Your task to perform on an android device: What's the weather like in Rio de Janeiro? Image 0: 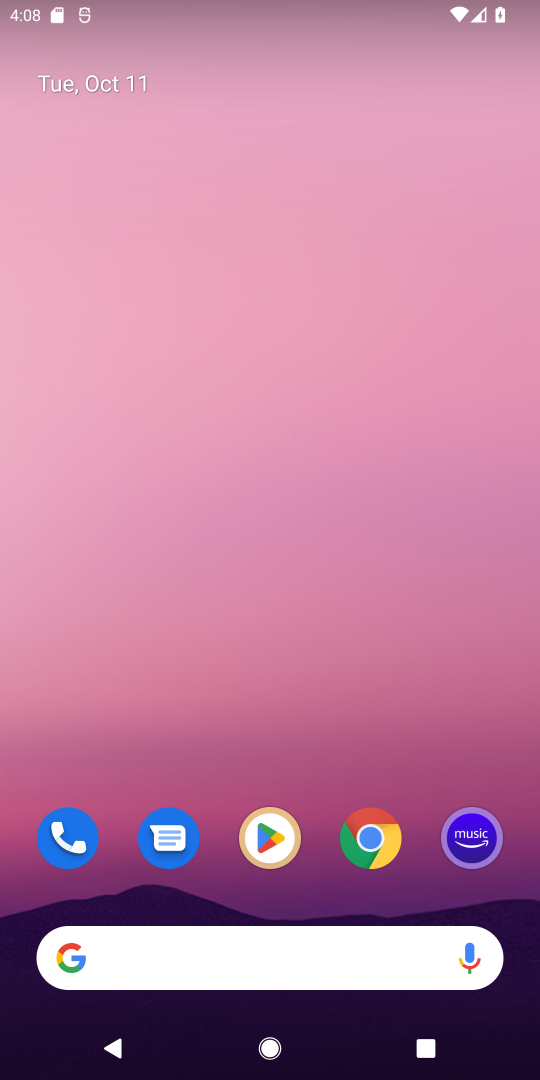
Step 0: click (376, 850)
Your task to perform on an android device: What's the weather like in Rio de Janeiro? Image 1: 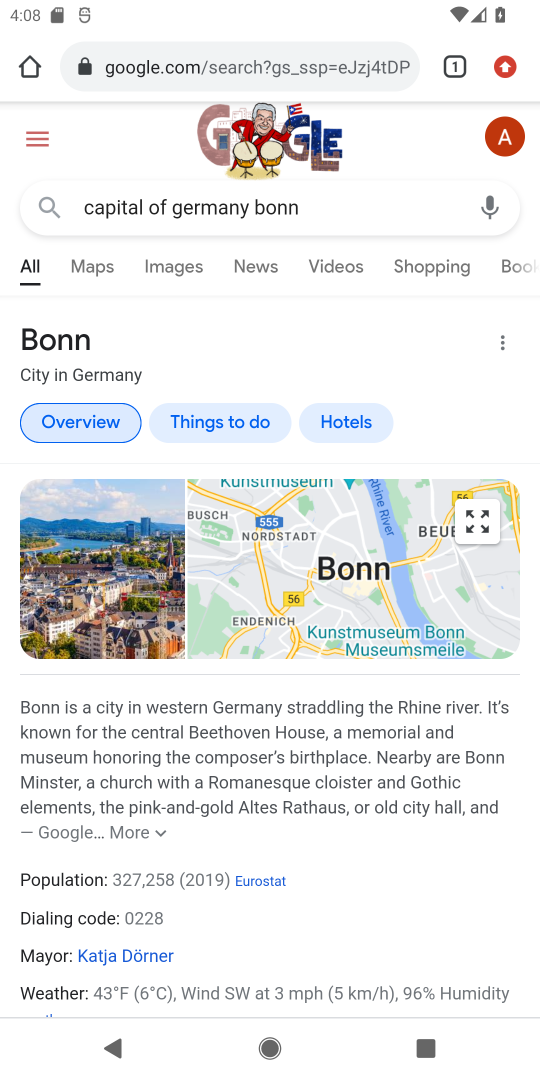
Step 1: click (242, 66)
Your task to perform on an android device: What's the weather like in Rio de Janeiro? Image 2: 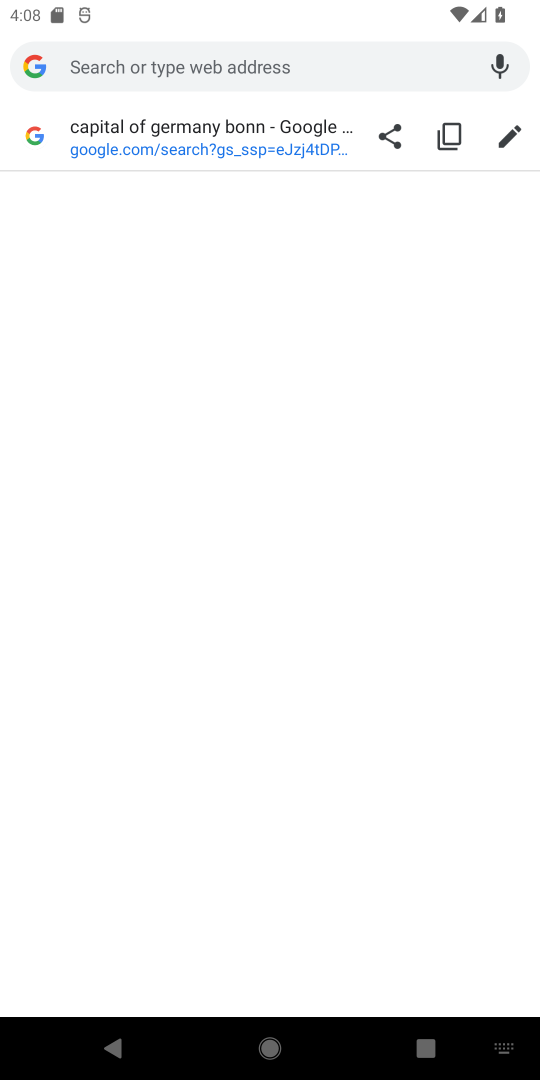
Step 2: type "weather like in rio de janerio"
Your task to perform on an android device: What's the weather like in Rio de Janeiro? Image 3: 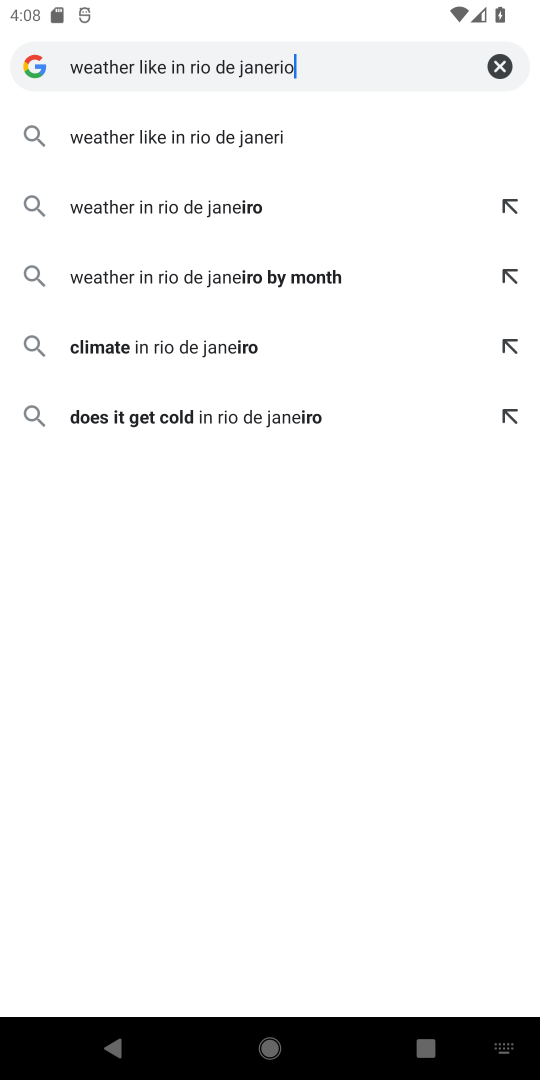
Step 3: type ""
Your task to perform on an android device: What's the weather like in Rio de Janeiro? Image 4: 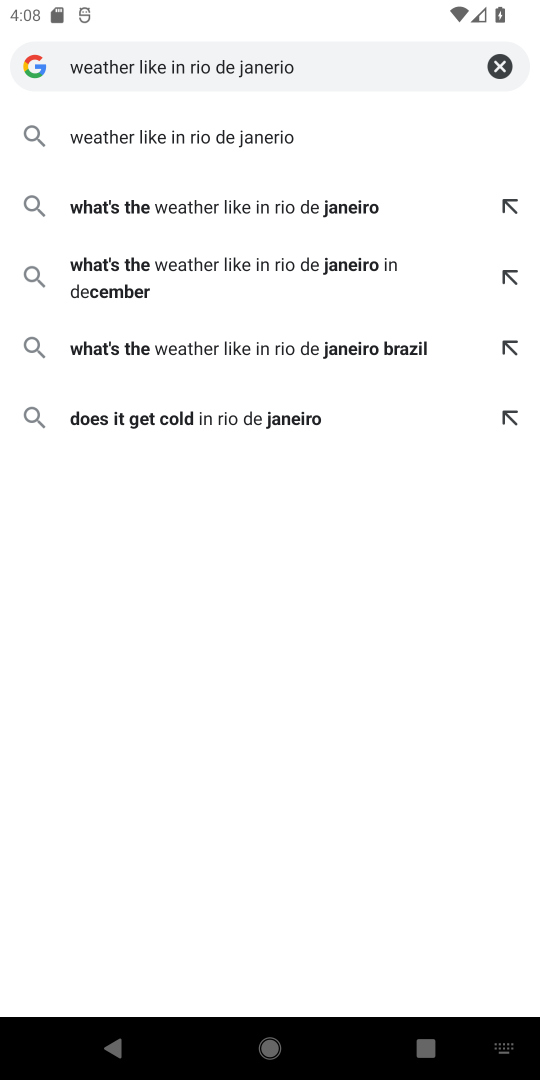
Step 4: click (210, 213)
Your task to perform on an android device: What's the weather like in Rio de Janeiro? Image 5: 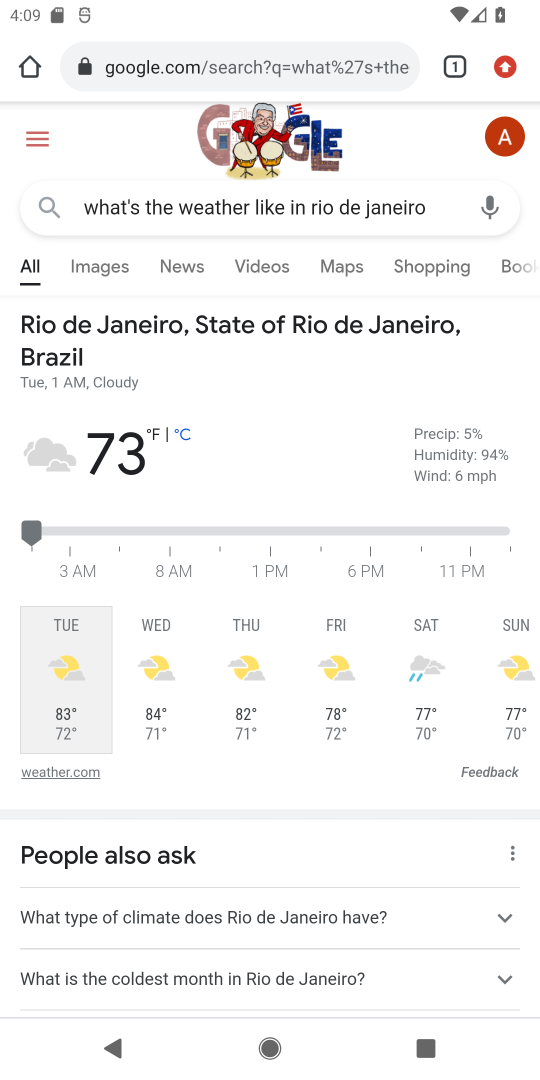
Step 5: task complete